Your task to perform on an android device: toggle priority inbox in the gmail app Image 0: 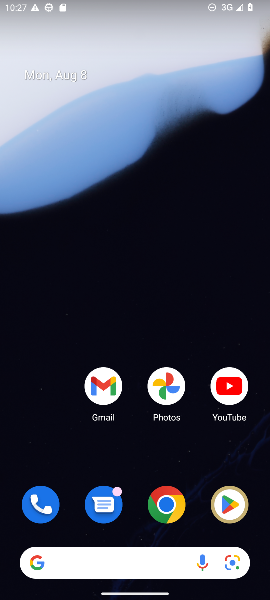
Step 0: click (102, 396)
Your task to perform on an android device: toggle priority inbox in the gmail app Image 1: 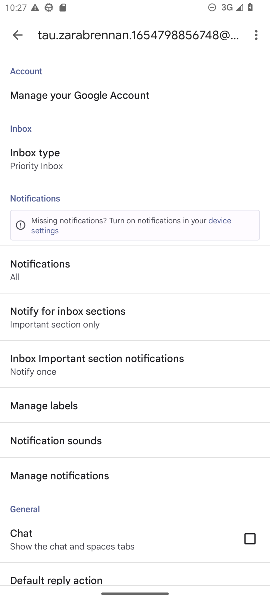
Step 1: click (27, 157)
Your task to perform on an android device: toggle priority inbox in the gmail app Image 2: 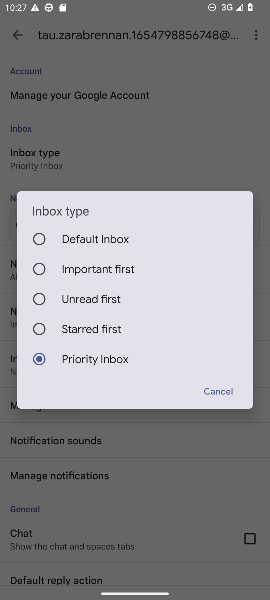
Step 2: click (77, 246)
Your task to perform on an android device: toggle priority inbox in the gmail app Image 3: 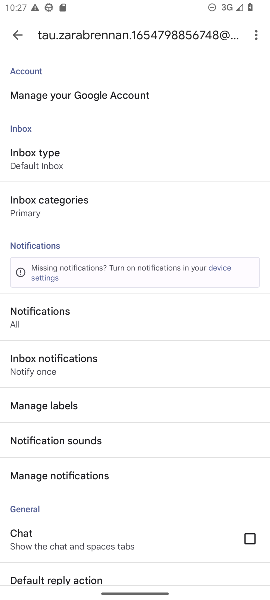
Step 3: task complete